Your task to perform on an android device: delete location history Image 0: 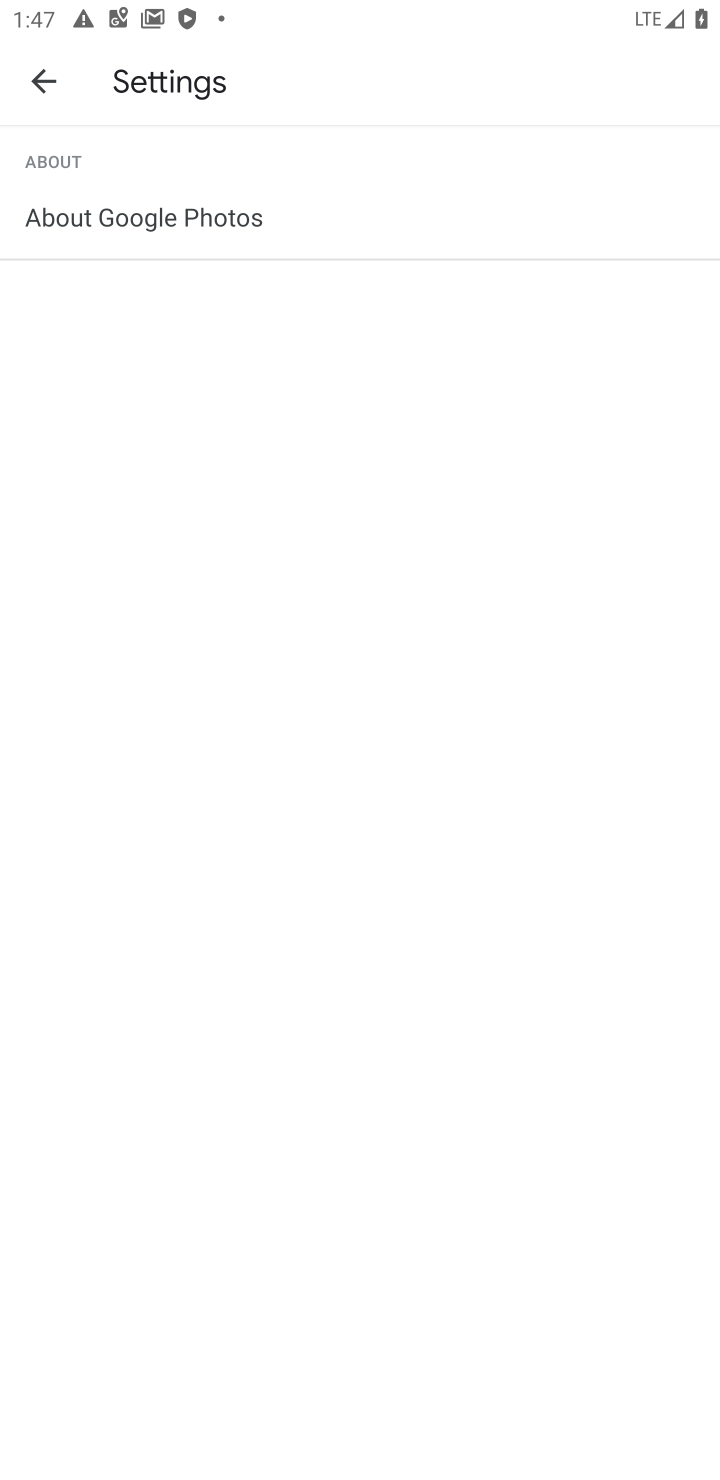
Step 0: press home button
Your task to perform on an android device: delete location history Image 1: 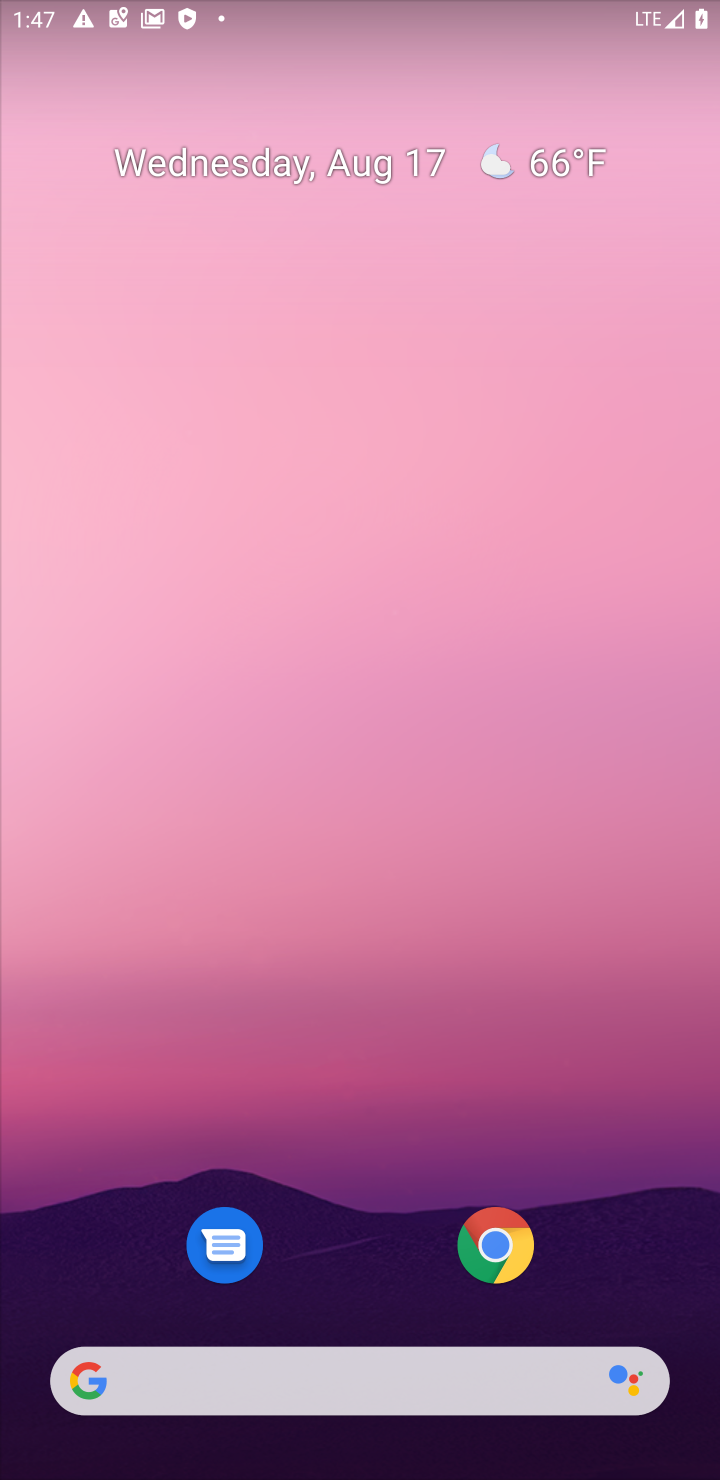
Step 1: drag from (353, 472) to (347, 183)
Your task to perform on an android device: delete location history Image 2: 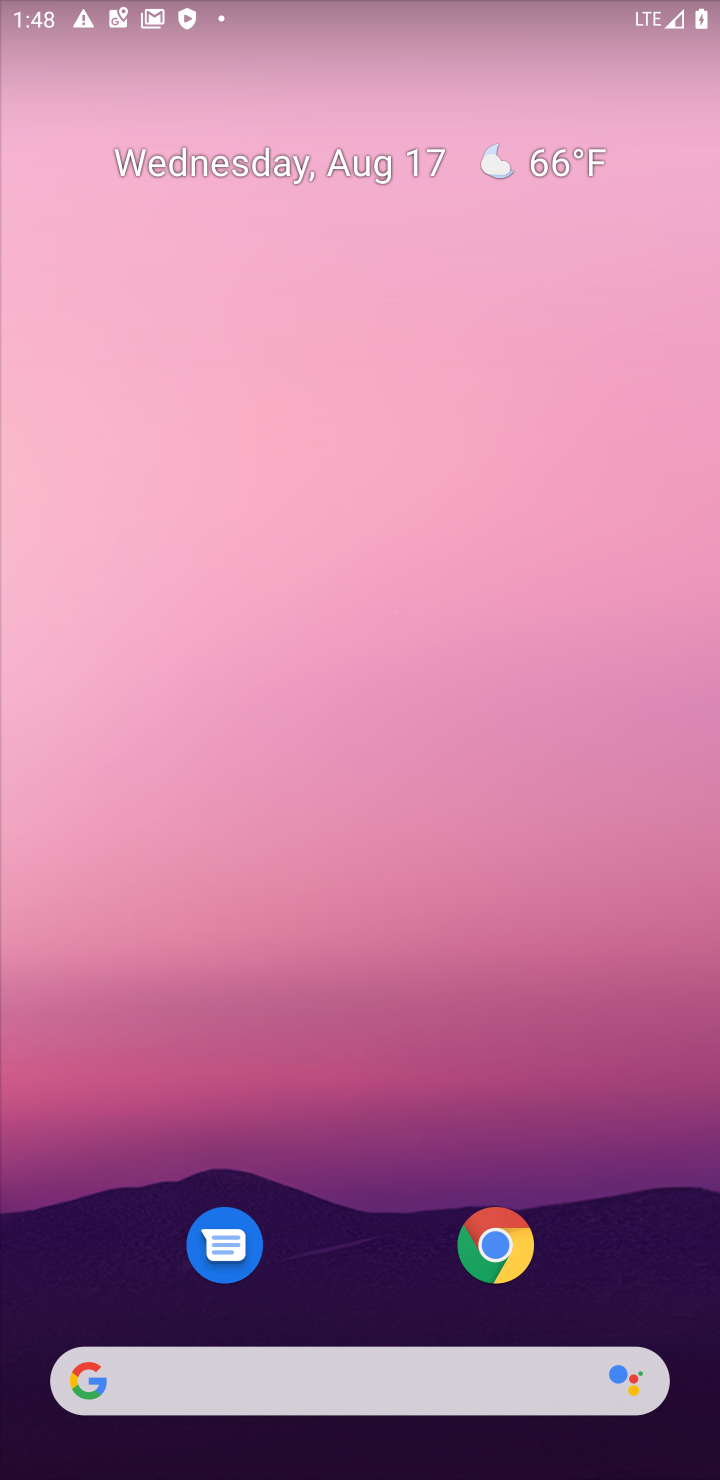
Step 2: drag from (352, 894) to (277, 79)
Your task to perform on an android device: delete location history Image 3: 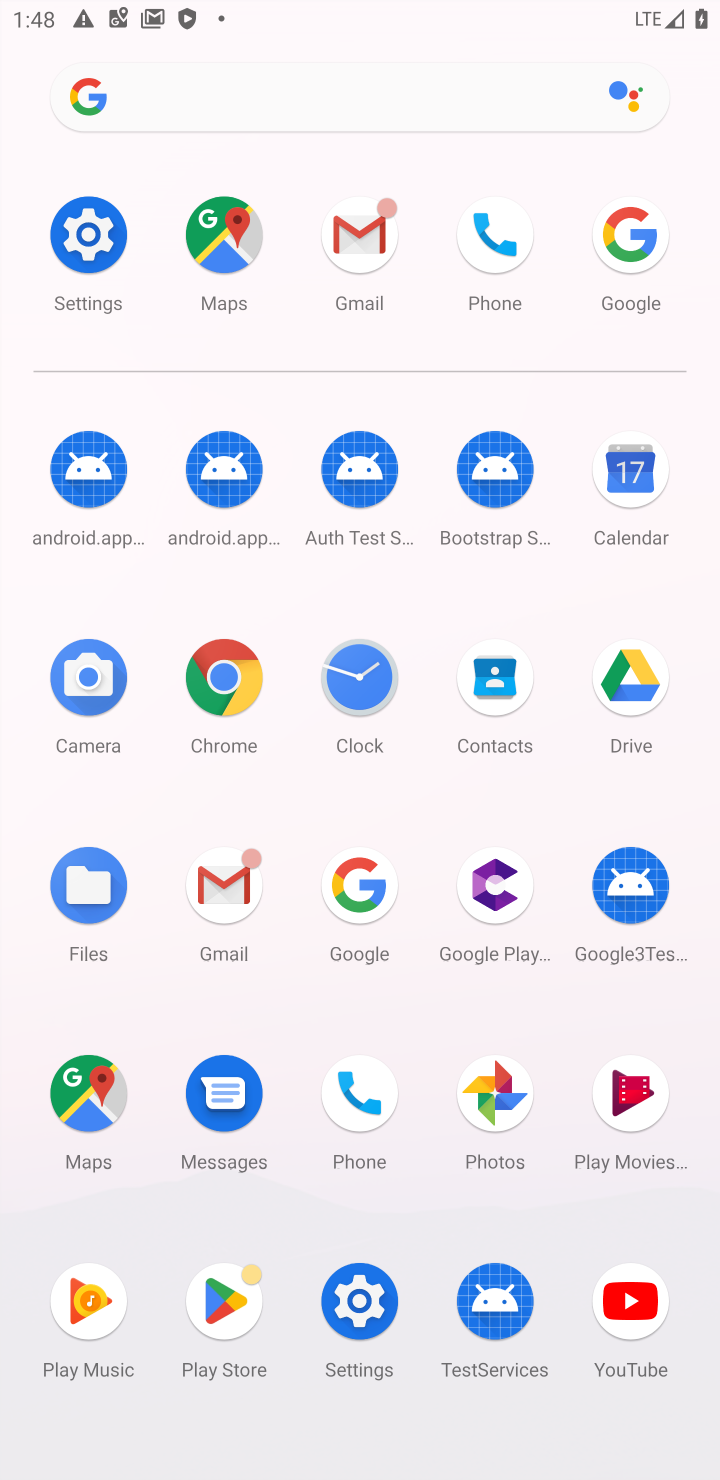
Step 3: click (69, 1114)
Your task to perform on an android device: delete location history Image 4: 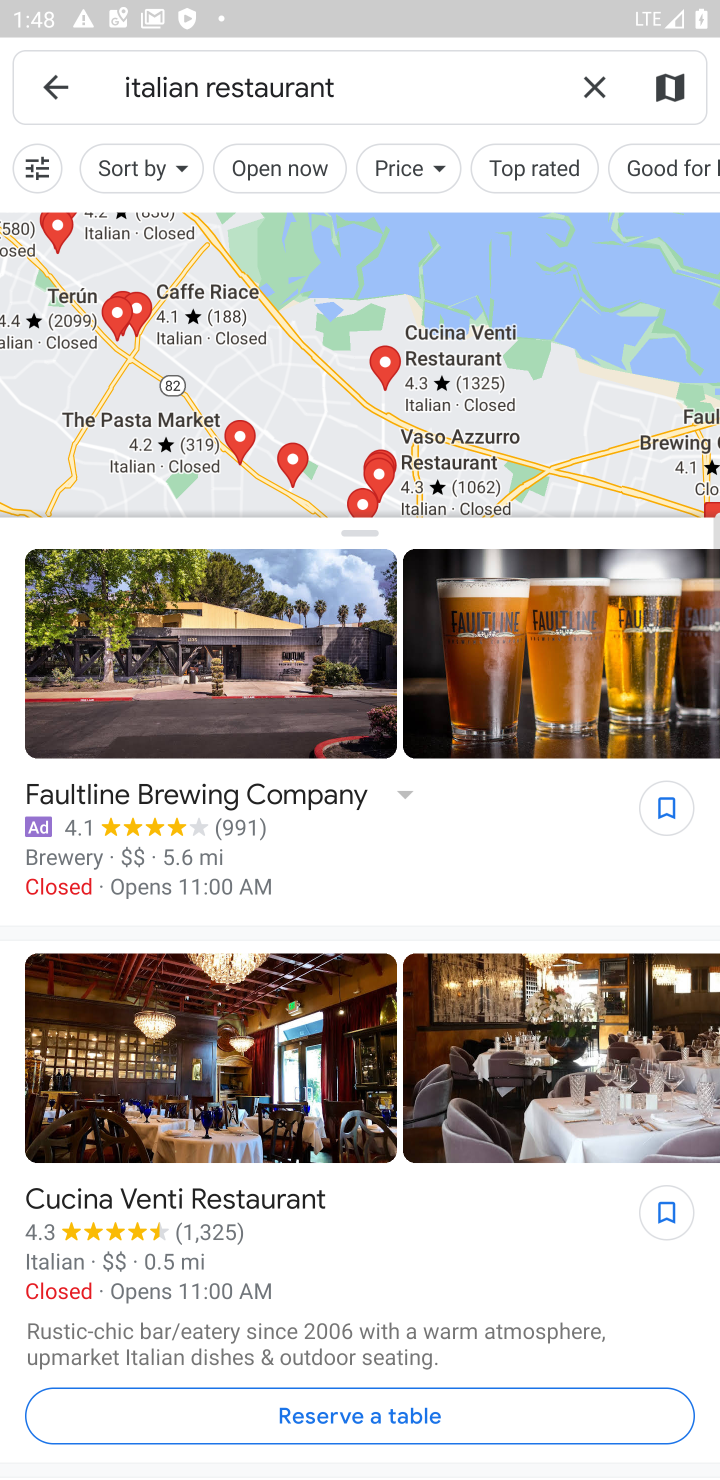
Step 4: click (50, 84)
Your task to perform on an android device: delete location history Image 5: 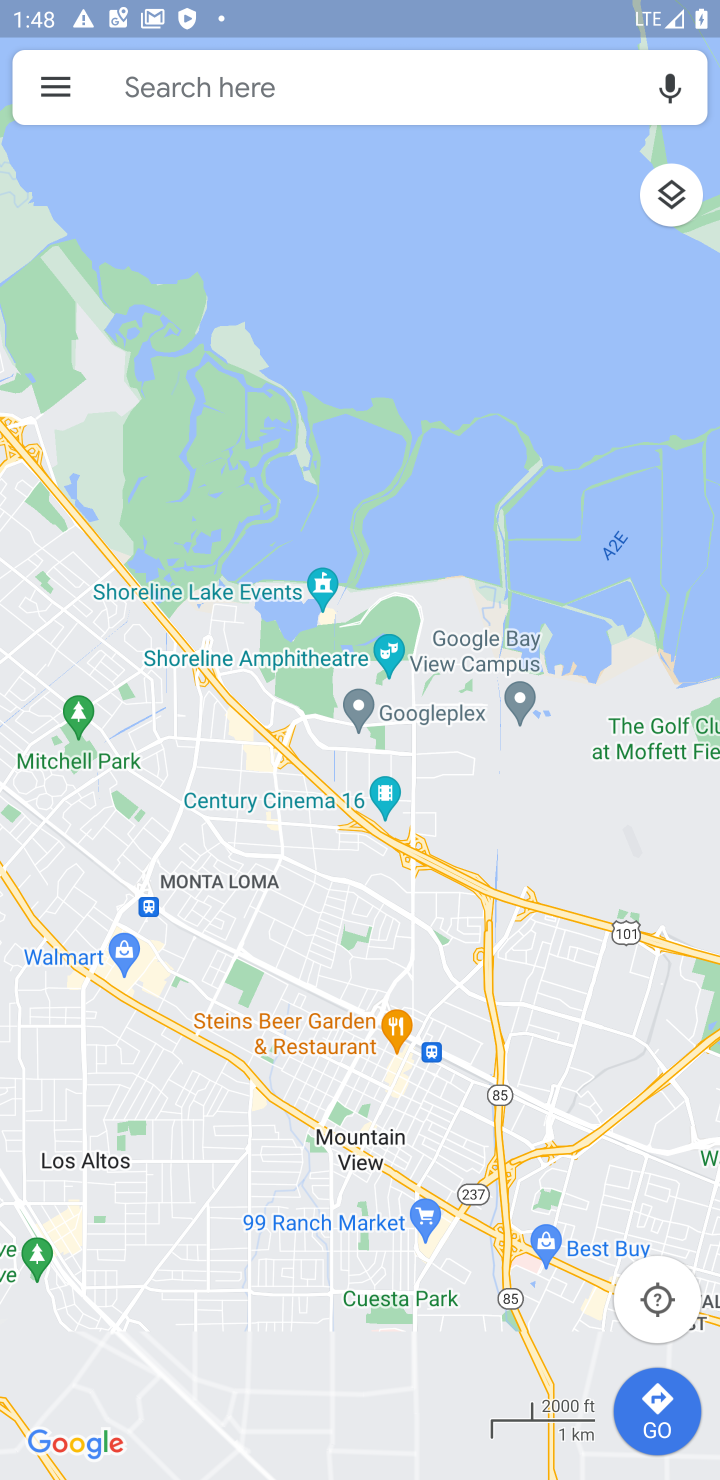
Step 5: click (57, 86)
Your task to perform on an android device: delete location history Image 6: 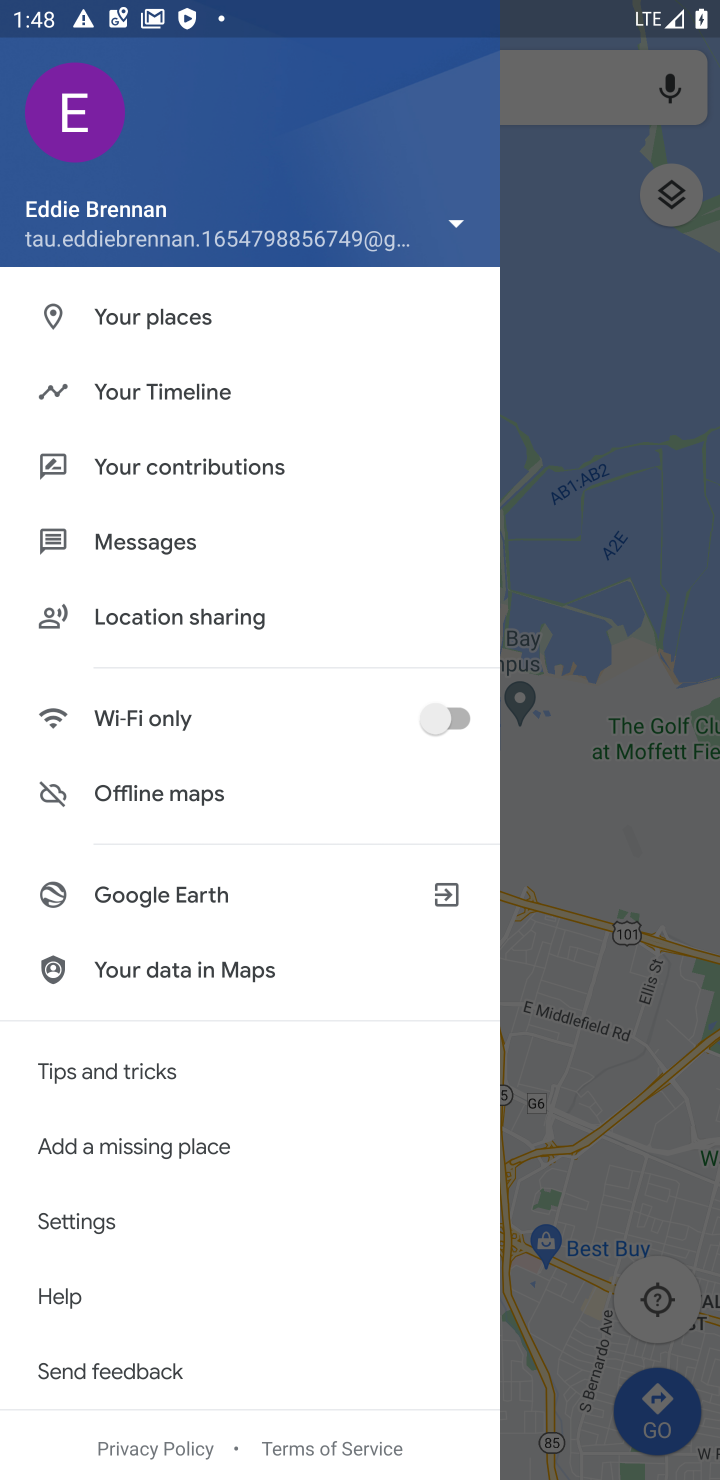
Step 6: click (203, 392)
Your task to perform on an android device: delete location history Image 7: 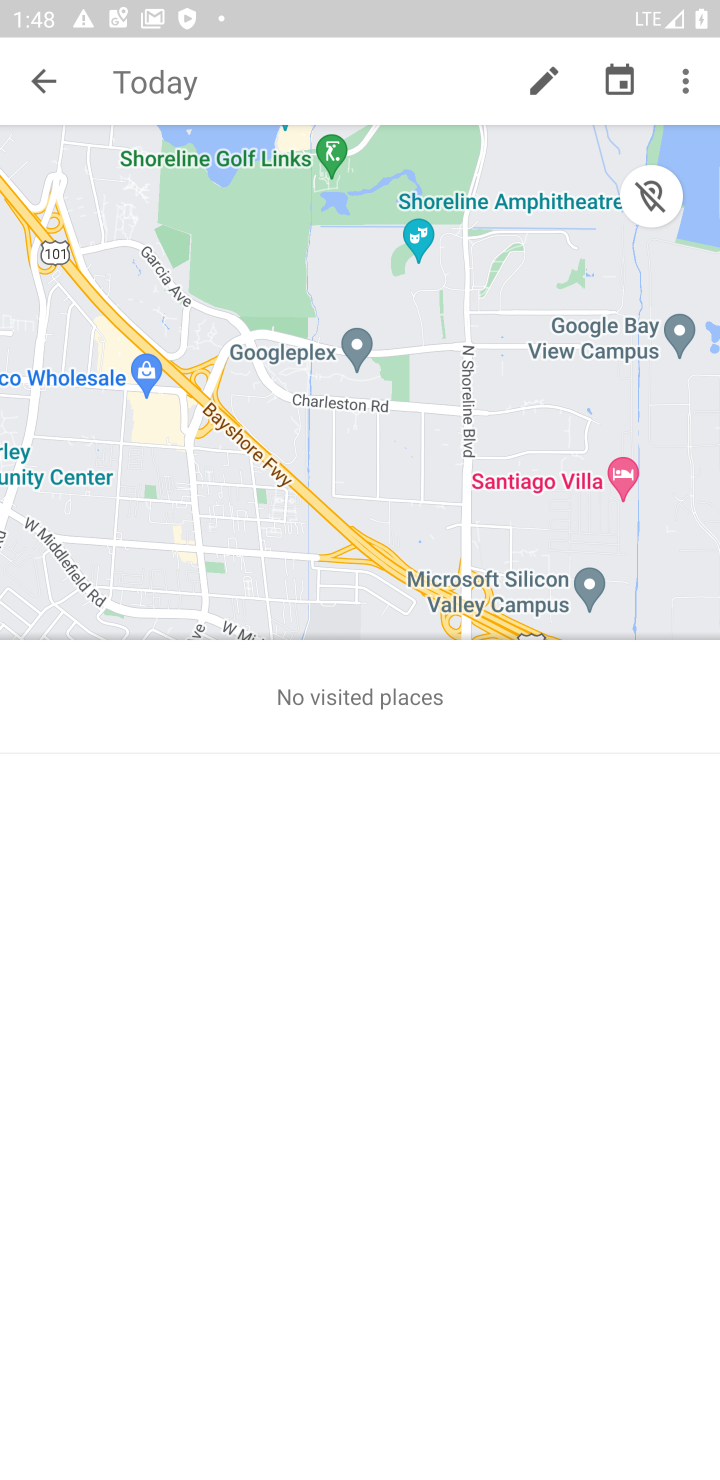
Step 7: click (684, 92)
Your task to perform on an android device: delete location history Image 8: 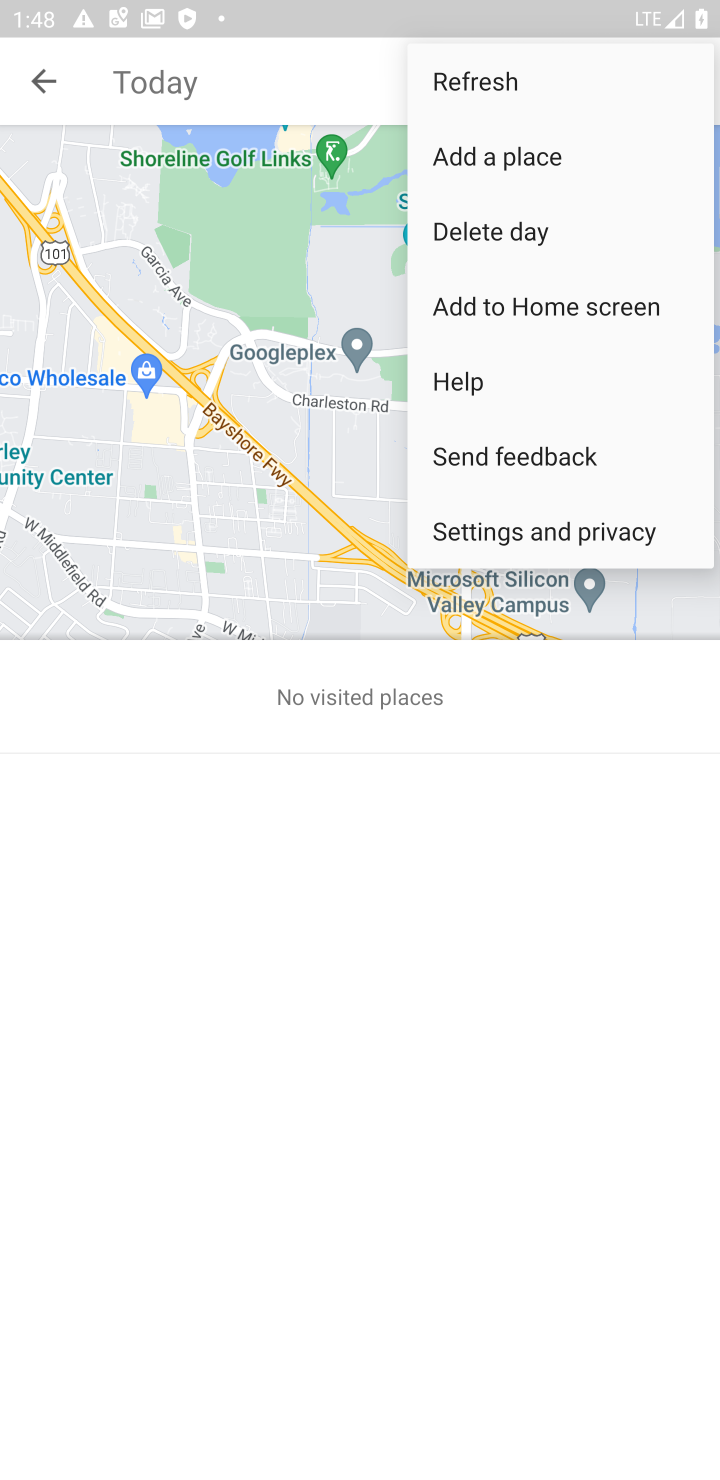
Step 8: click (511, 524)
Your task to perform on an android device: delete location history Image 9: 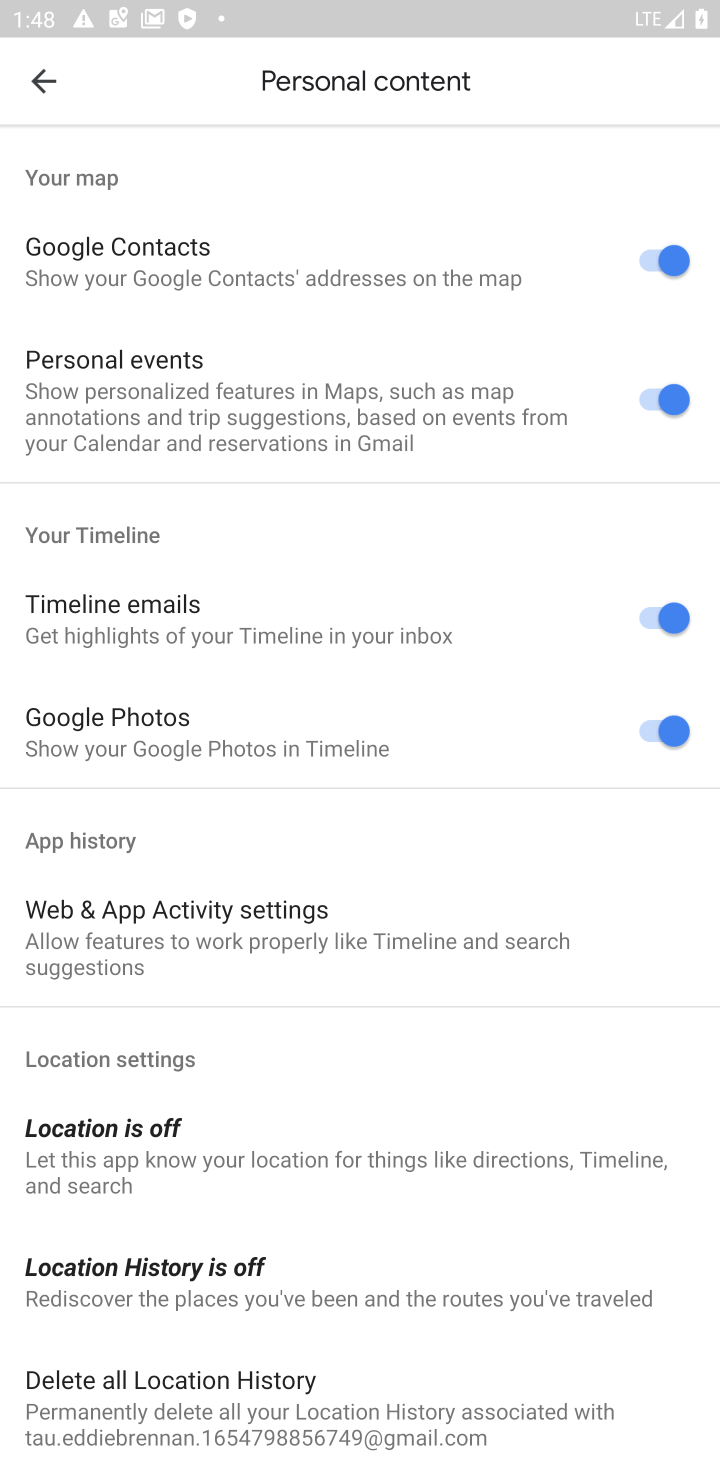
Step 9: click (219, 1377)
Your task to perform on an android device: delete location history Image 10: 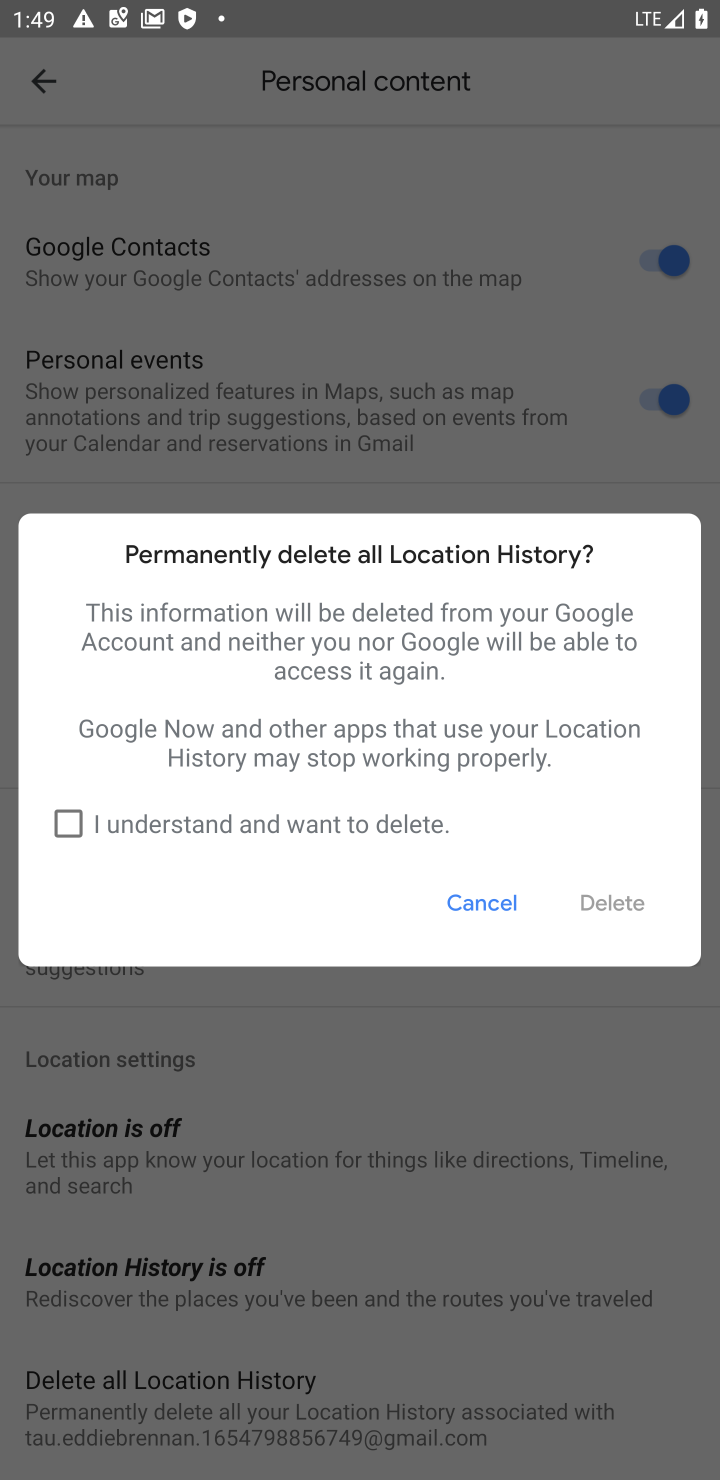
Step 10: click (67, 819)
Your task to perform on an android device: delete location history Image 11: 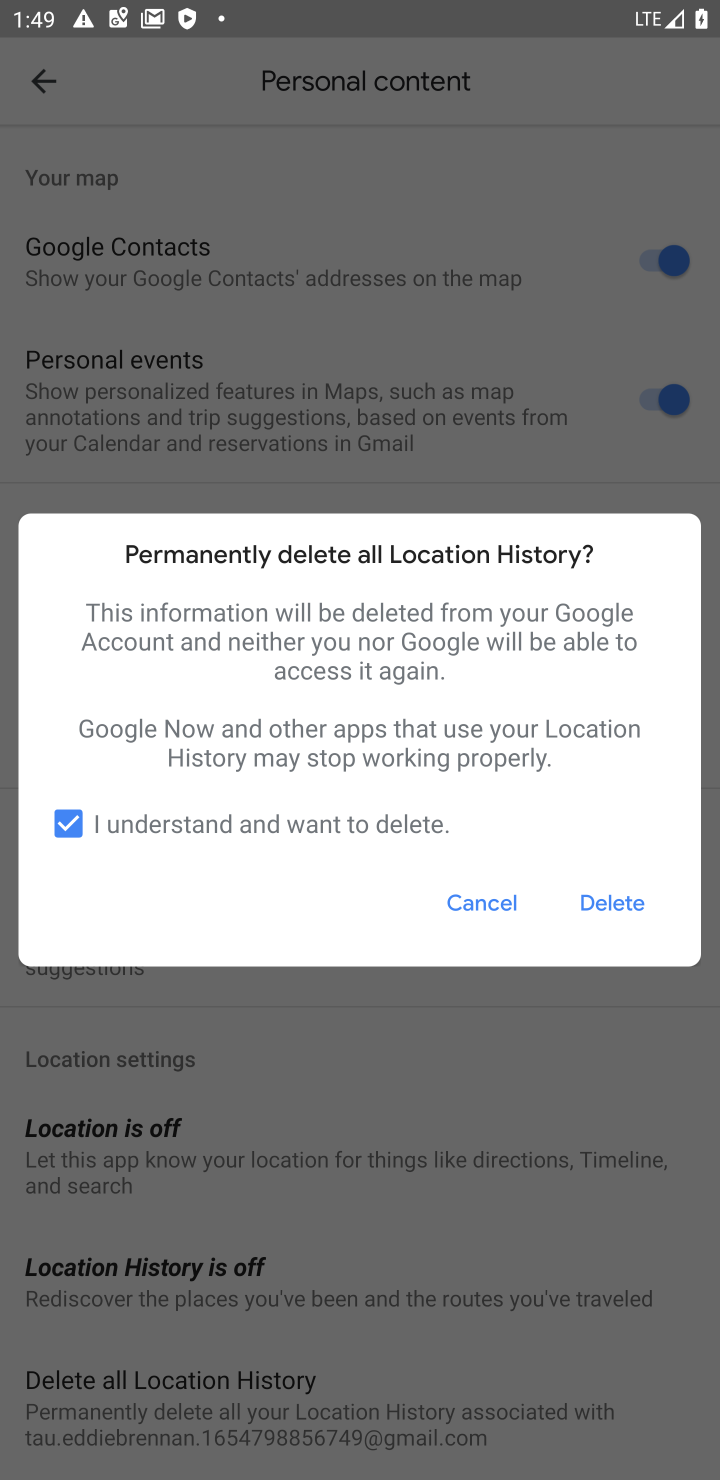
Step 11: click (616, 903)
Your task to perform on an android device: delete location history Image 12: 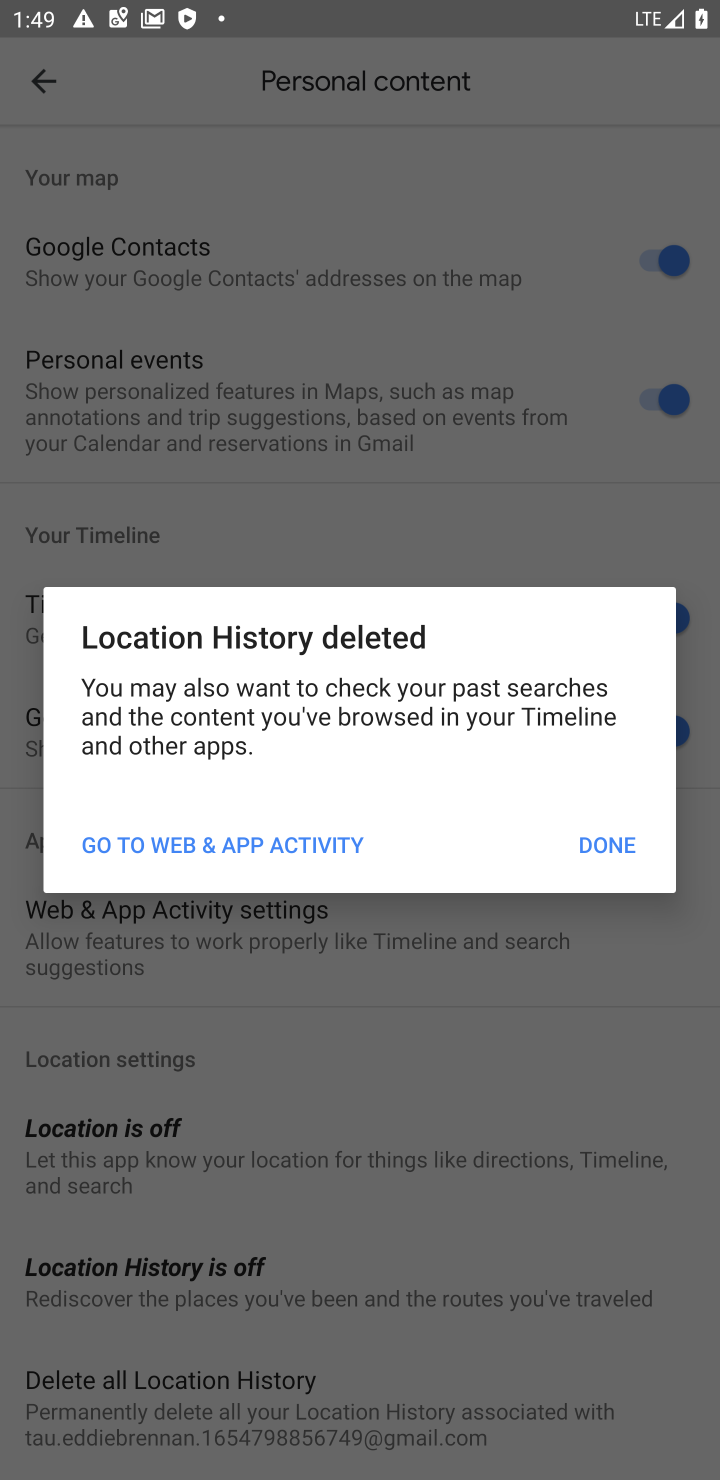
Step 12: click (608, 842)
Your task to perform on an android device: delete location history Image 13: 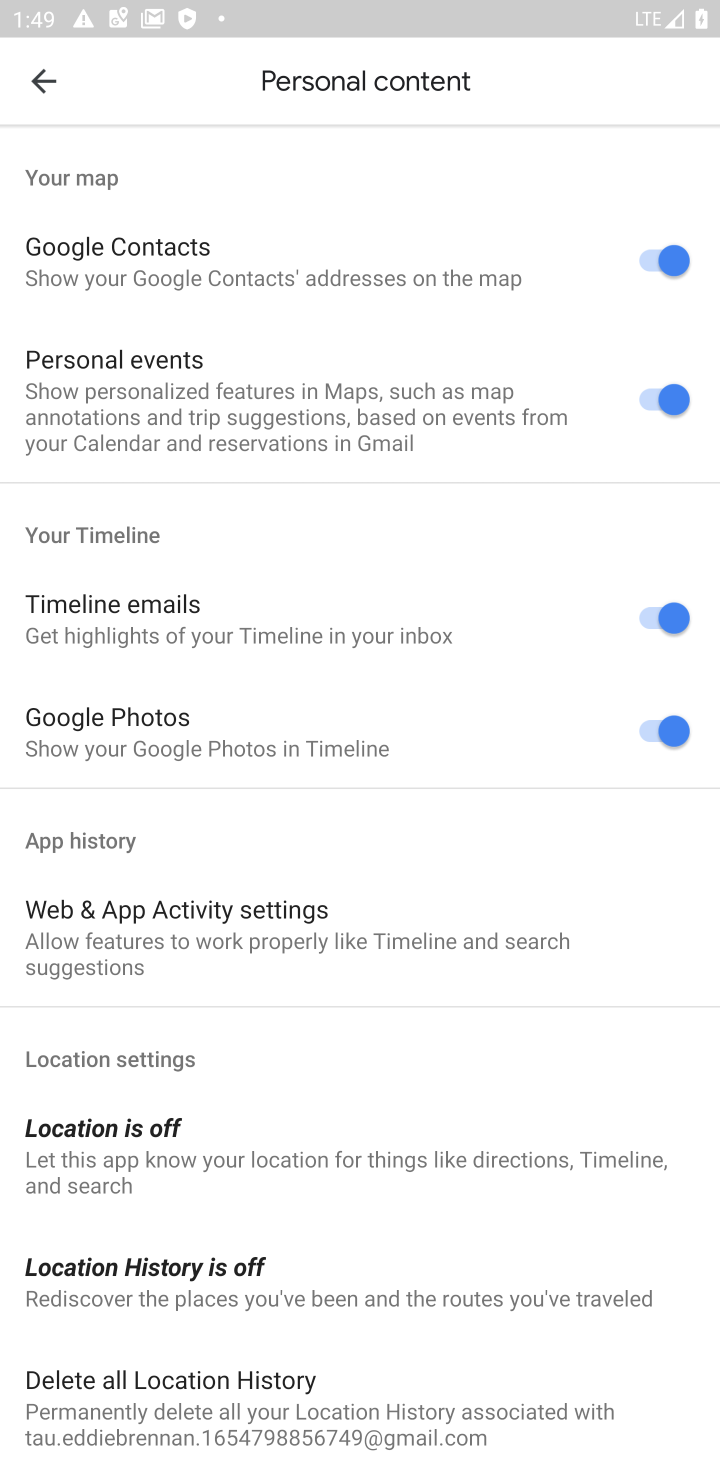
Step 13: task complete